Your task to perform on an android device: Go to Maps Image 0: 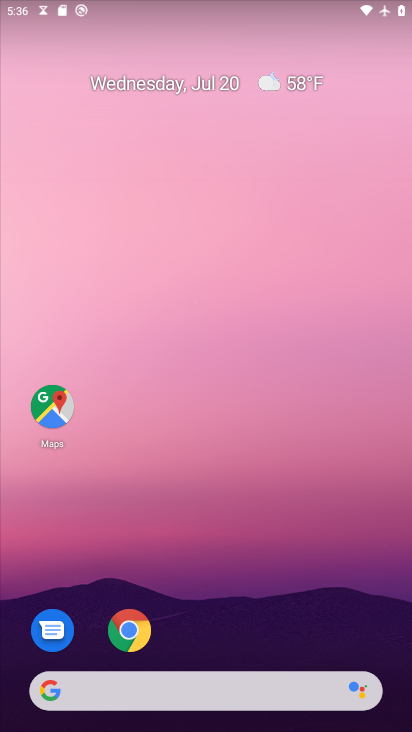
Step 0: press home button
Your task to perform on an android device: Go to Maps Image 1: 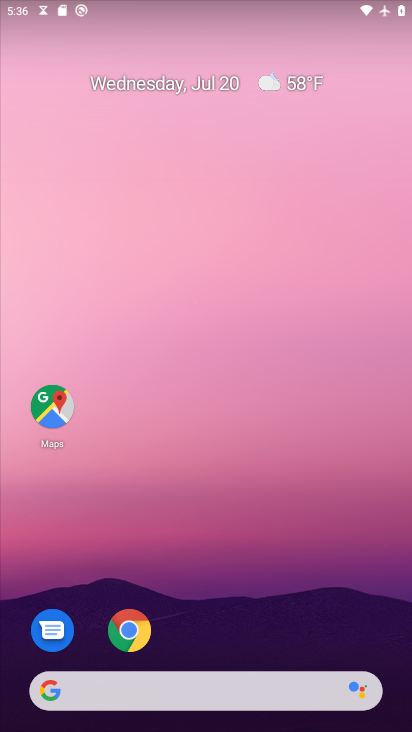
Step 1: drag from (192, 649) to (206, 143)
Your task to perform on an android device: Go to Maps Image 2: 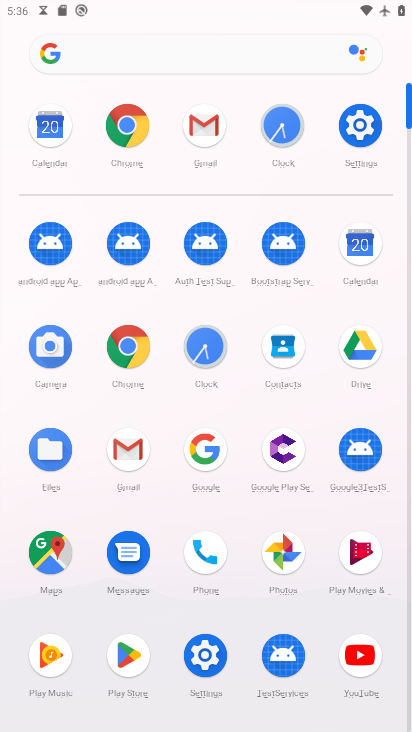
Step 2: click (53, 555)
Your task to perform on an android device: Go to Maps Image 3: 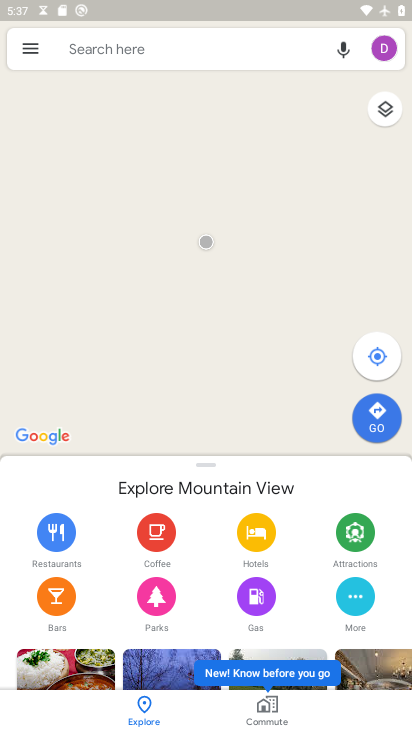
Step 3: task complete